Your task to perform on an android device: Open Wikipedia Image 0: 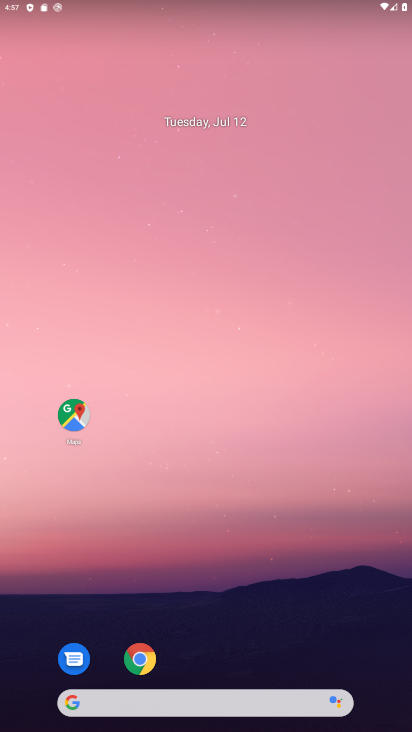
Step 0: click (141, 661)
Your task to perform on an android device: Open Wikipedia Image 1: 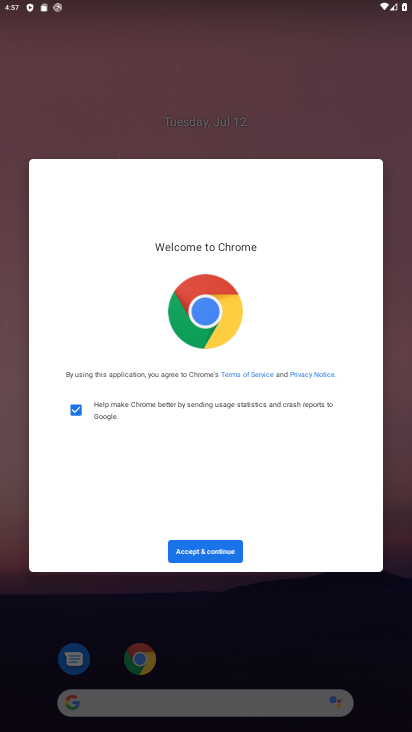
Step 1: click (204, 547)
Your task to perform on an android device: Open Wikipedia Image 2: 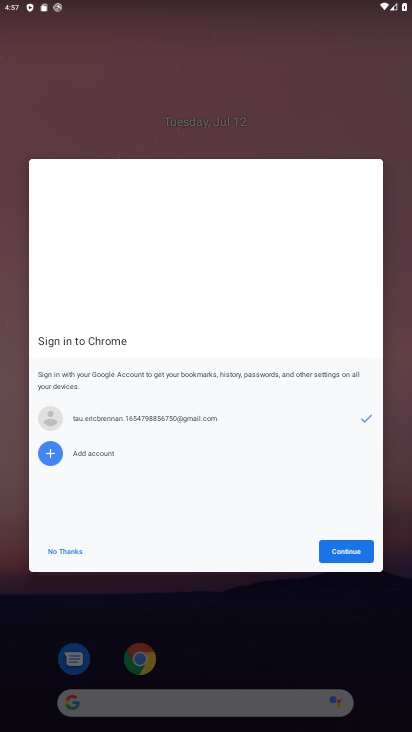
Step 2: click (333, 552)
Your task to perform on an android device: Open Wikipedia Image 3: 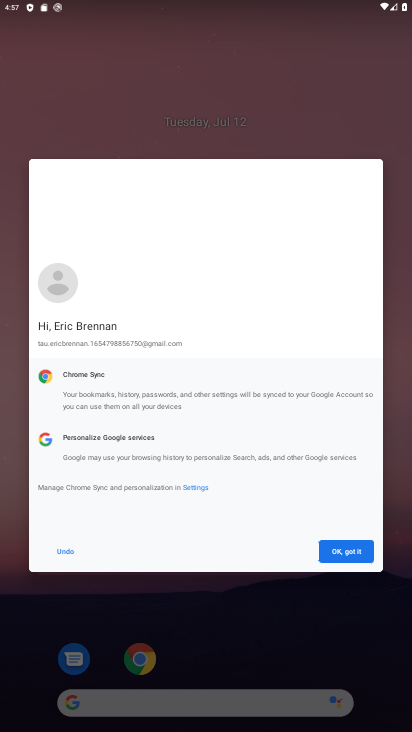
Step 3: click (333, 552)
Your task to perform on an android device: Open Wikipedia Image 4: 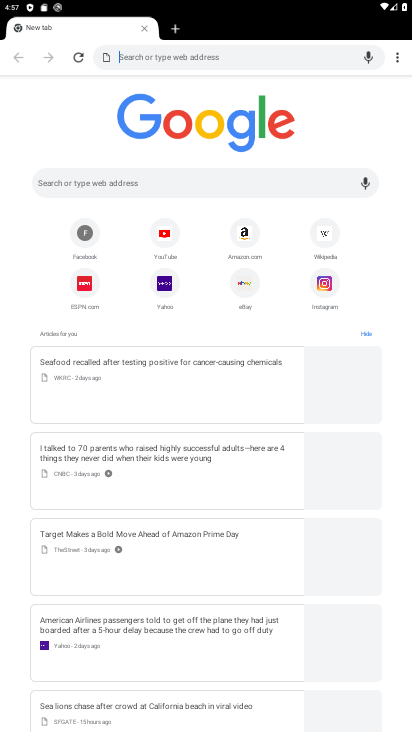
Step 4: click (100, 186)
Your task to perform on an android device: Open Wikipedia Image 5: 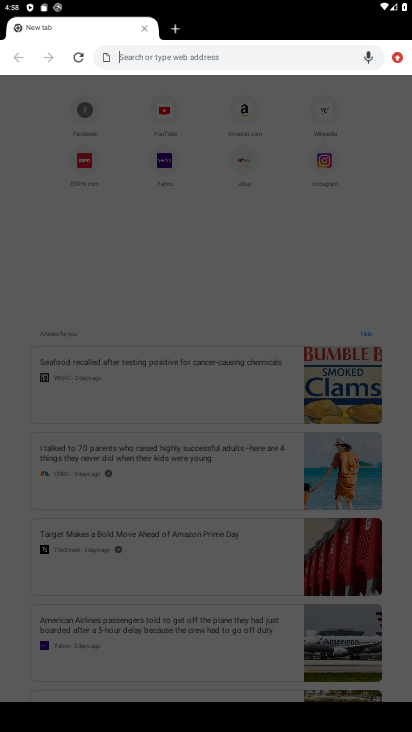
Step 5: type "wikipedia"
Your task to perform on an android device: Open Wikipedia Image 6: 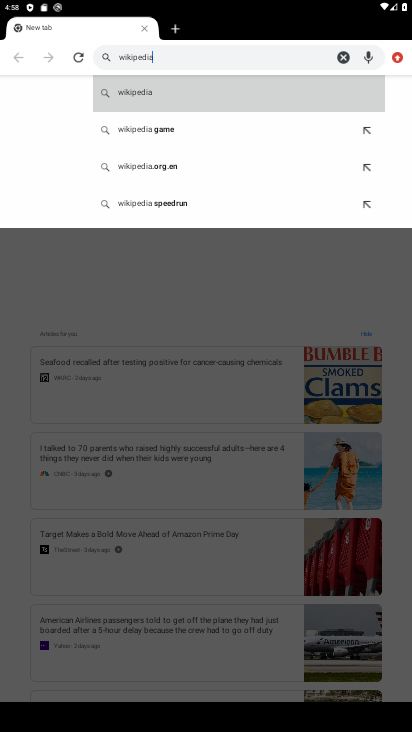
Step 6: click (128, 90)
Your task to perform on an android device: Open Wikipedia Image 7: 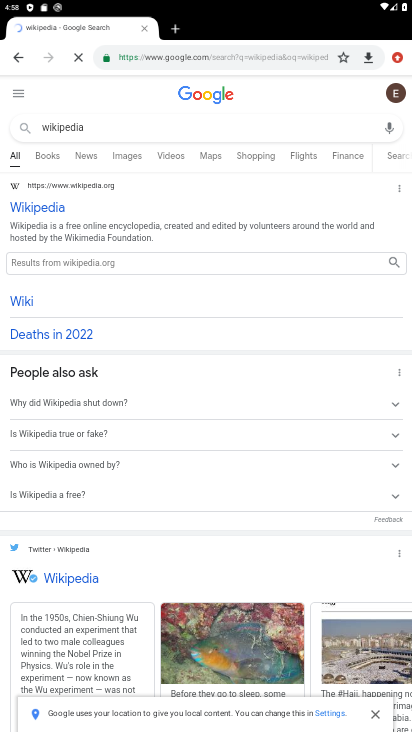
Step 7: click (23, 200)
Your task to perform on an android device: Open Wikipedia Image 8: 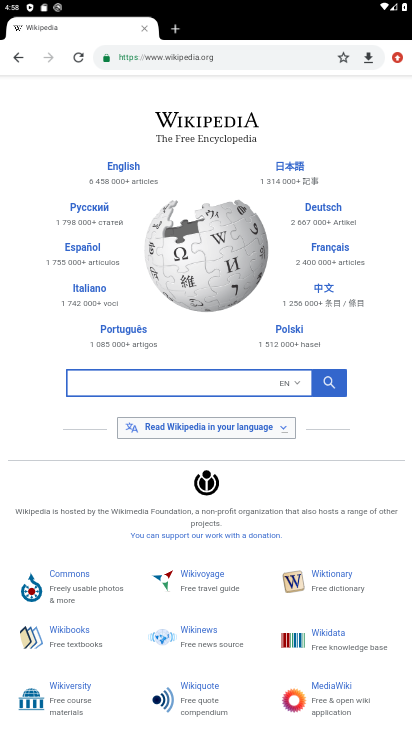
Step 8: task complete